Your task to perform on an android device: turn off translation in the chrome app Image 0: 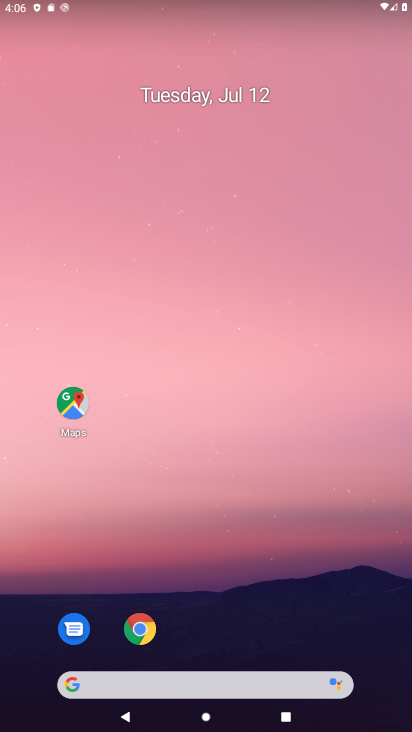
Step 0: press home button
Your task to perform on an android device: turn off translation in the chrome app Image 1: 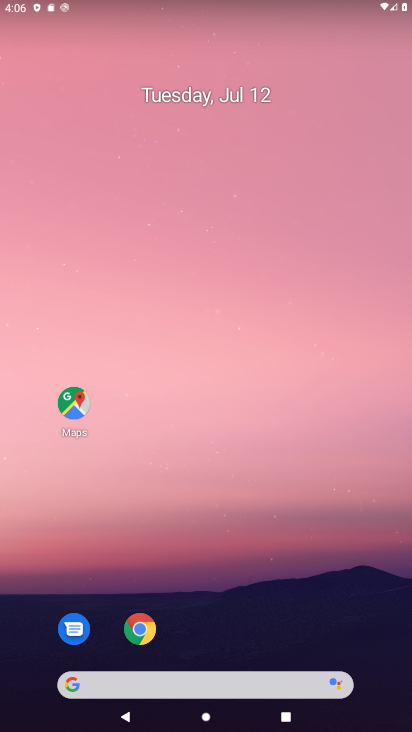
Step 1: drag from (217, 634) to (208, 33)
Your task to perform on an android device: turn off translation in the chrome app Image 2: 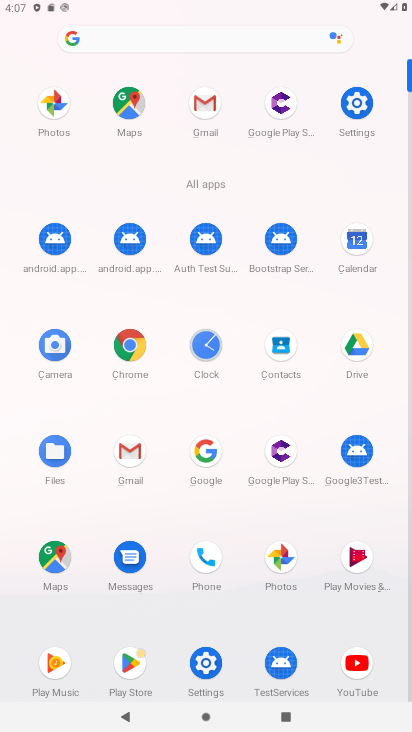
Step 2: click (130, 348)
Your task to perform on an android device: turn off translation in the chrome app Image 3: 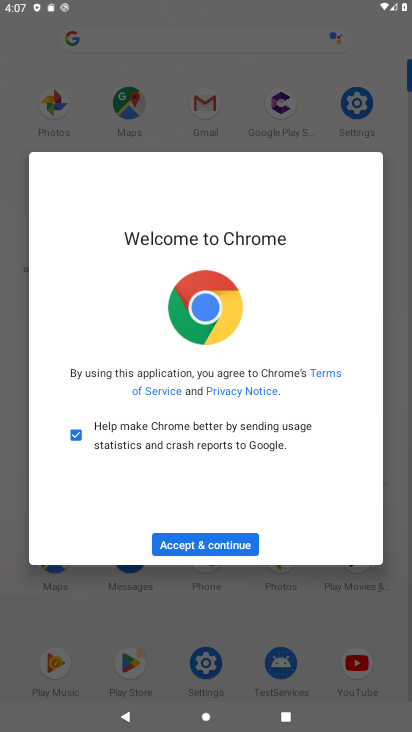
Step 3: click (193, 549)
Your task to perform on an android device: turn off translation in the chrome app Image 4: 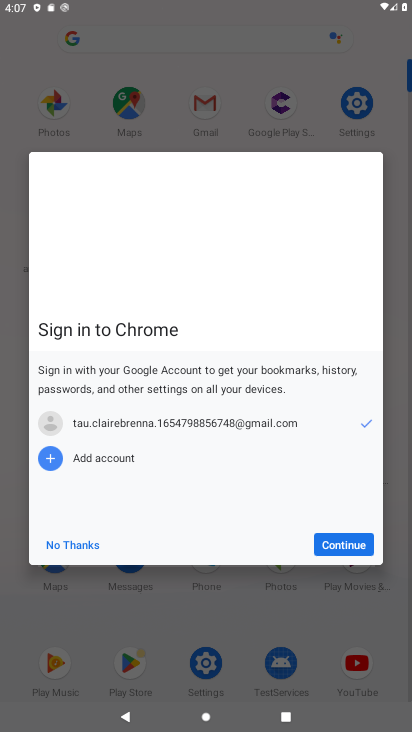
Step 4: click (335, 544)
Your task to perform on an android device: turn off translation in the chrome app Image 5: 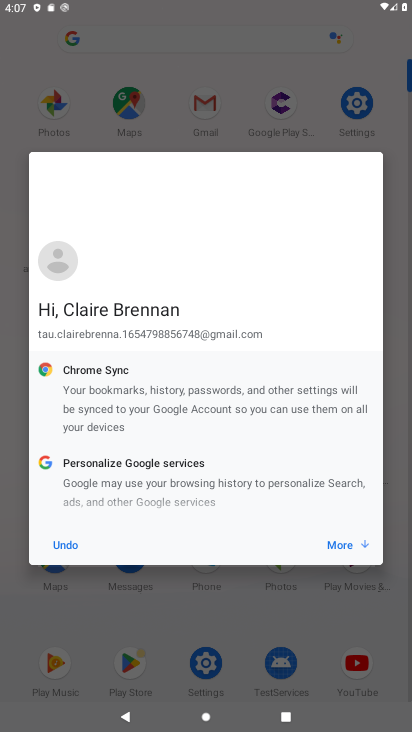
Step 5: click (335, 544)
Your task to perform on an android device: turn off translation in the chrome app Image 6: 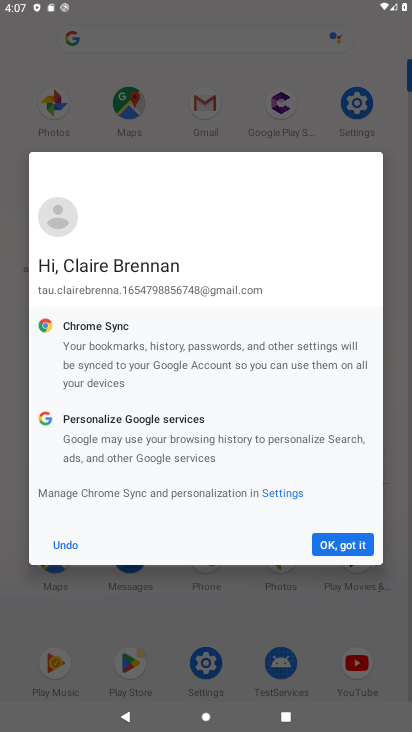
Step 6: click (335, 544)
Your task to perform on an android device: turn off translation in the chrome app Image 7: 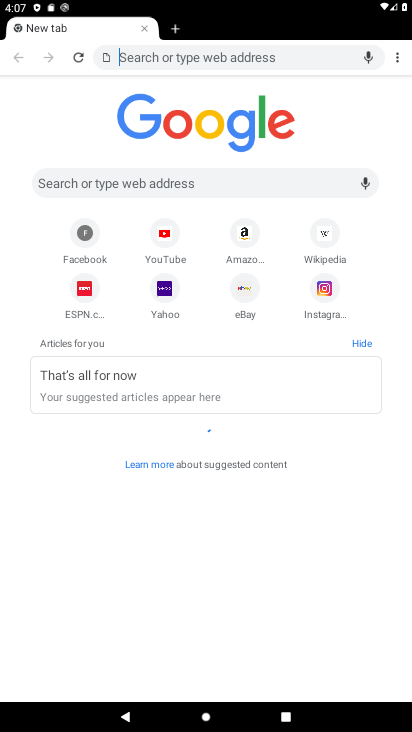
Step 7: drag from (400, 61) to (269, 268)
Your task to perform on an android device: turn off translation in the chrome app Image 8: 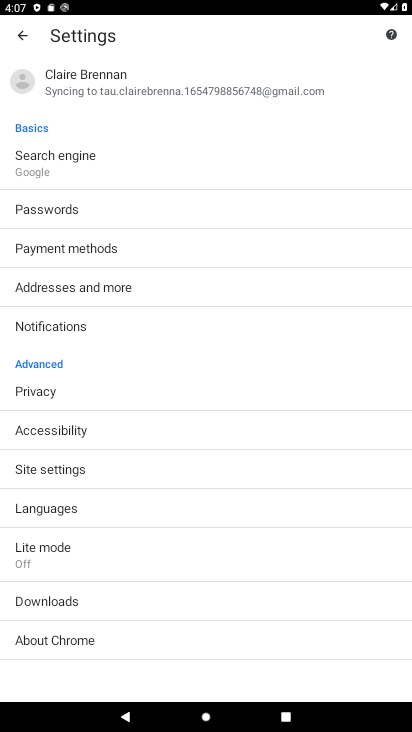
Step 8: click (43, 503)
Your task to perform on an android device: turn off translation in the chrome app Image 9: 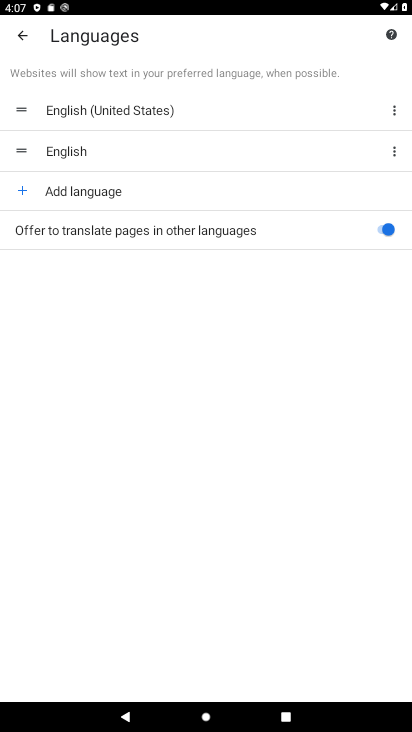
Step 9: click (385, 230)
Your task to perform on an android device: turn off translation in the chrome app Image 10: 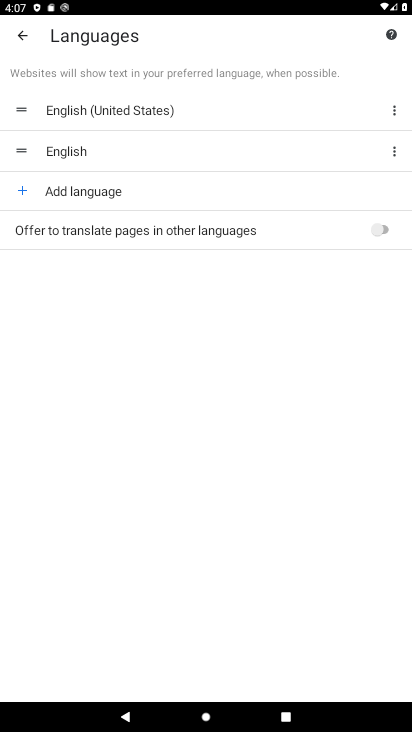
Step 10: task complete